Your task to perform on an android device: Open maps Image 0: 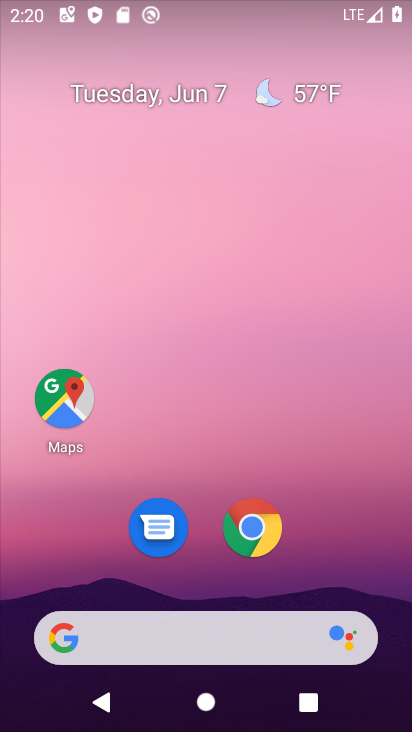
Step 0: click (83, 390)
Your task to perform on an android device: Open maps Image 1: 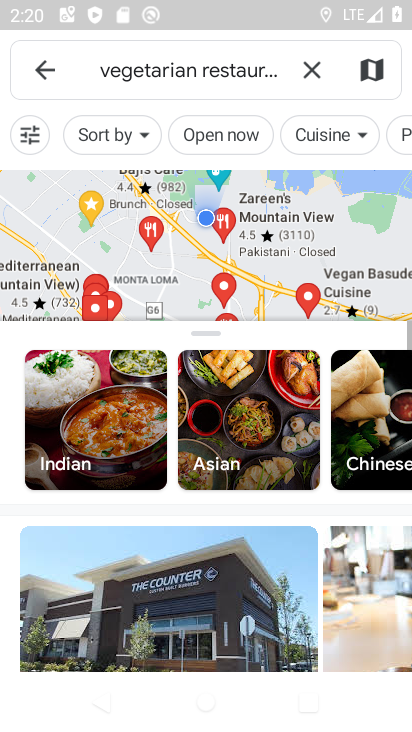
Step 1: task complete